Your task to perform on an android device: change timer sound Image 0: 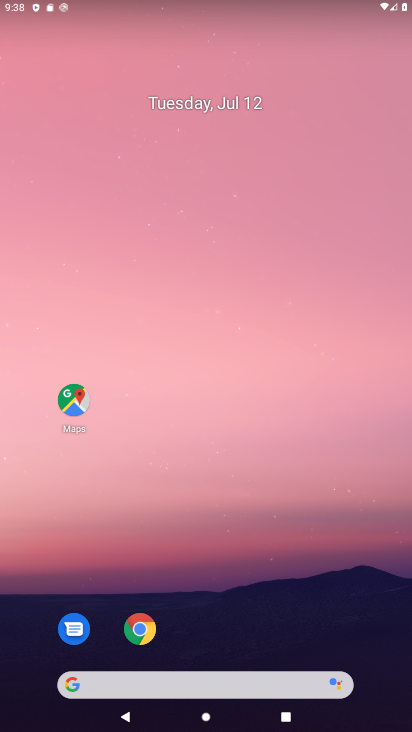
Step 0: drag from (267, 683) to (336, 44)
Your task to perform on an android device: change timer sound Image 1: 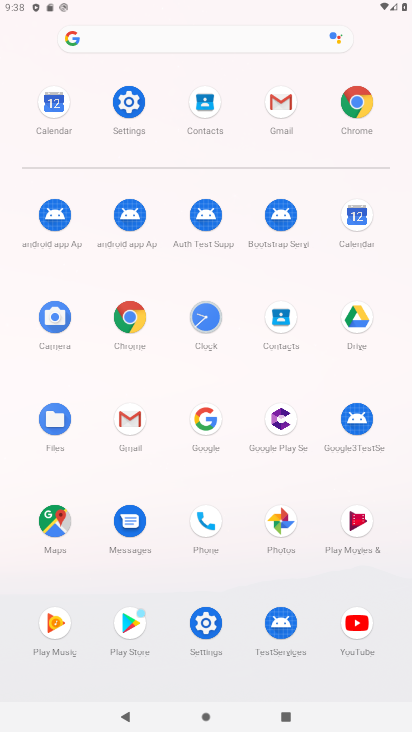
Step 1: click (140, 103)
Your task to perform on an android device: change timer sound Image 2: 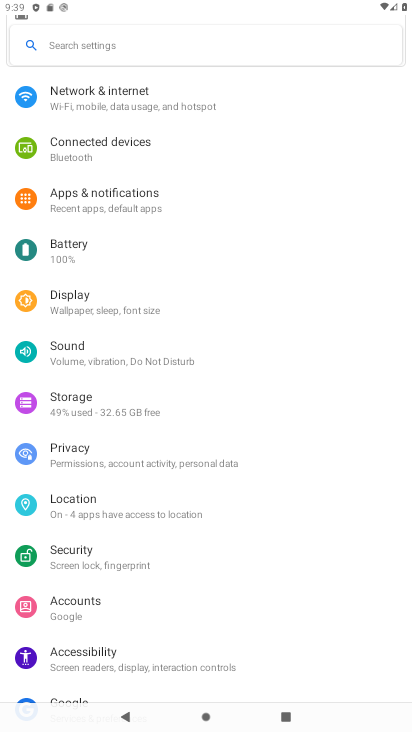
Step 2: press home button
Your task to perform on an android device: change timer sound Image 3: 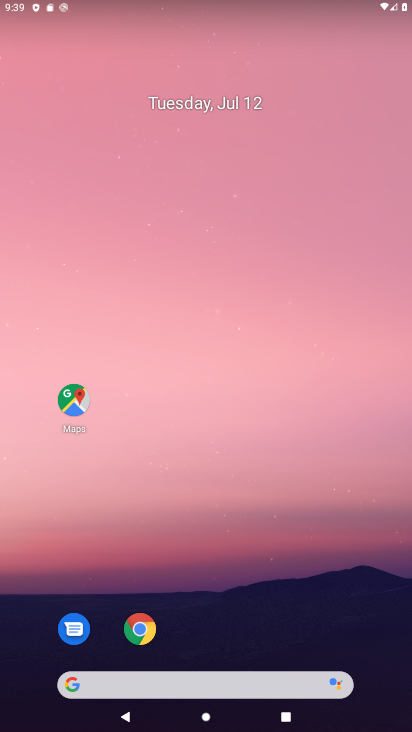
Step 3: drag from (226, 672) to (297, 110)
Your task to perform on an android device: change timer sound Image 4: 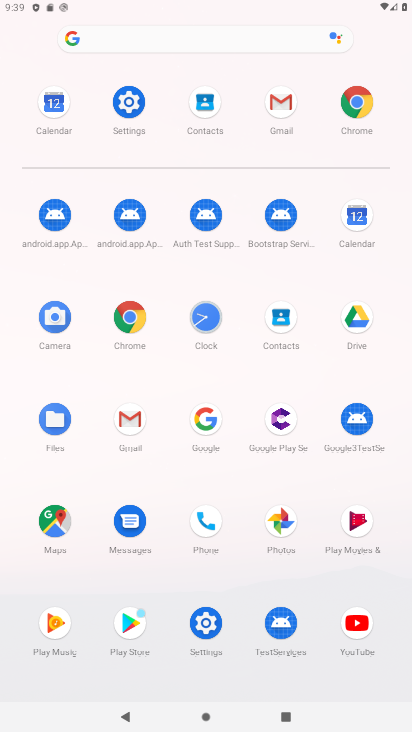
Step 4: click (204, 317)
Your task to perform on an android device: change timer sound Image 5: 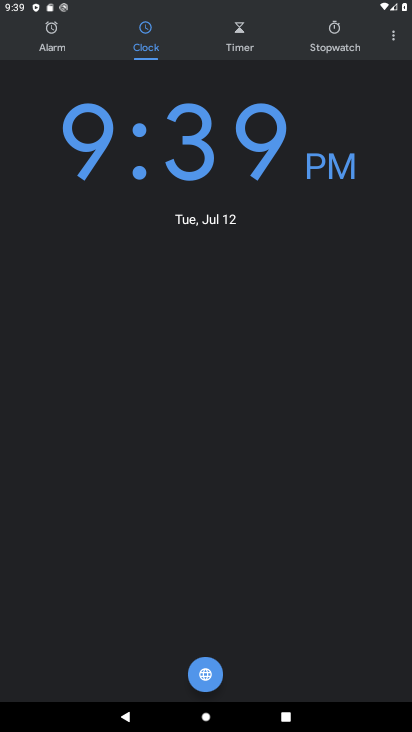
Step 5: click (385, 34)
Your task to perform on an android device: change timer sound Image 6: 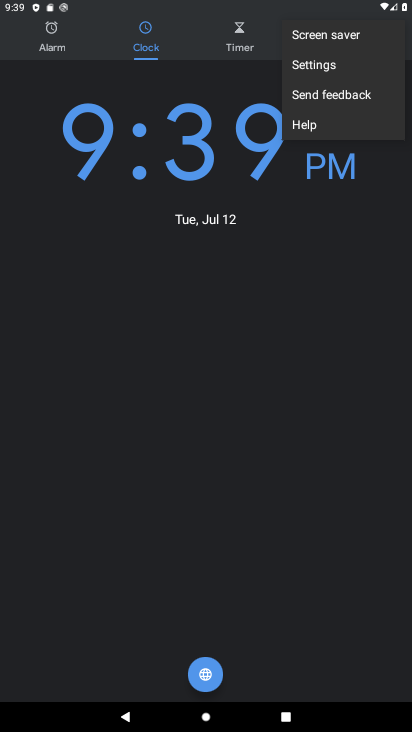
Step 6: click (327, 68)
Your task to perform on an android device: change timer sound Image 7: 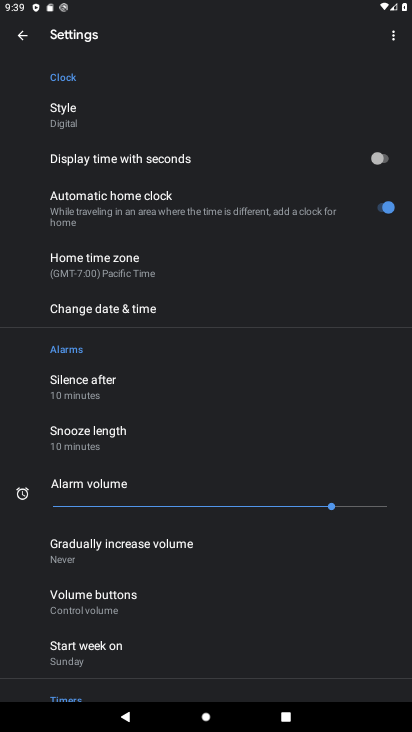
Step 7: drag from (158, 626) to (257, 151)
Your task to perform on an android device: change timer sound Image 8: 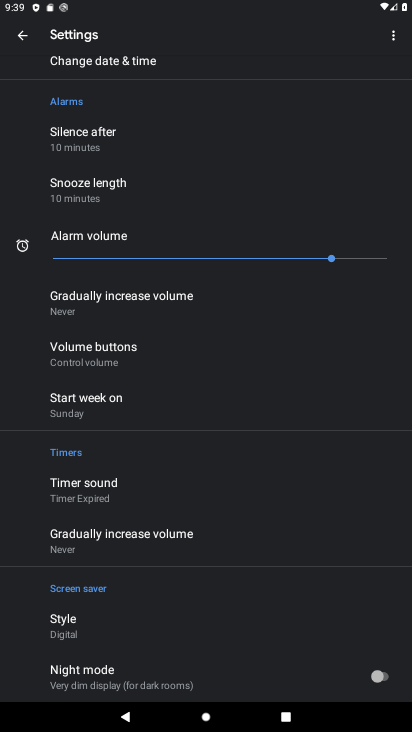
Step 8: click (141, 491)
Your task to perform on an android device: change timer sound Image 9: 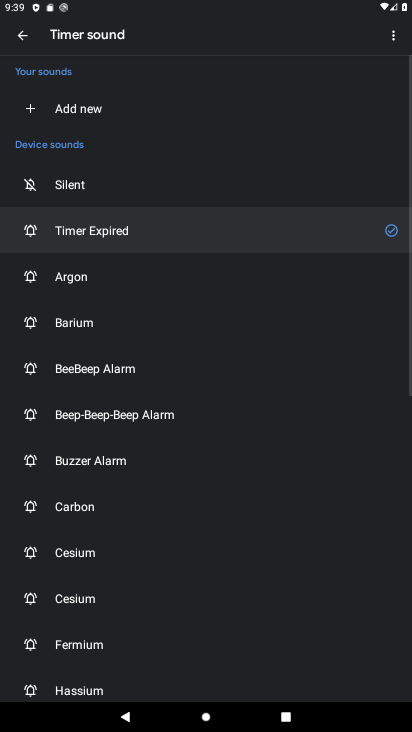
Step 9: click (78, 493)
Your task to perform on an android device: change timer sound Image 10: 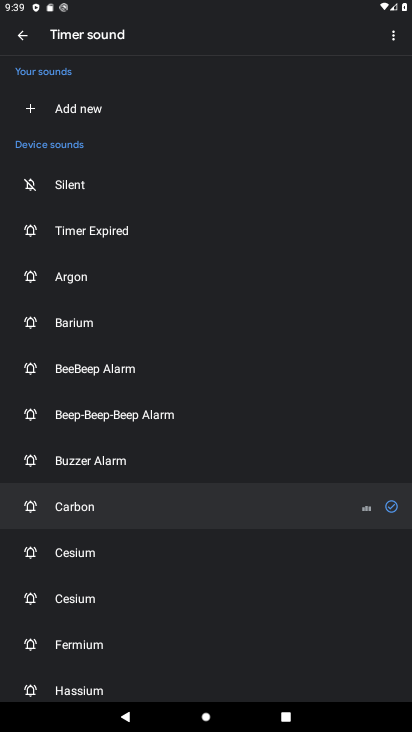
Step 10: click (86, 277)
Your task to perform on an android device: change timer sound Image 11: 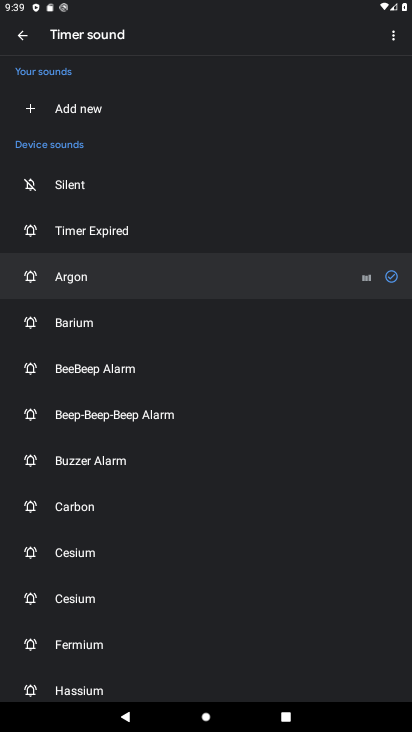
Step 11: task complete